Your task to perform on an android device: Go to Reddit.com Image 0: 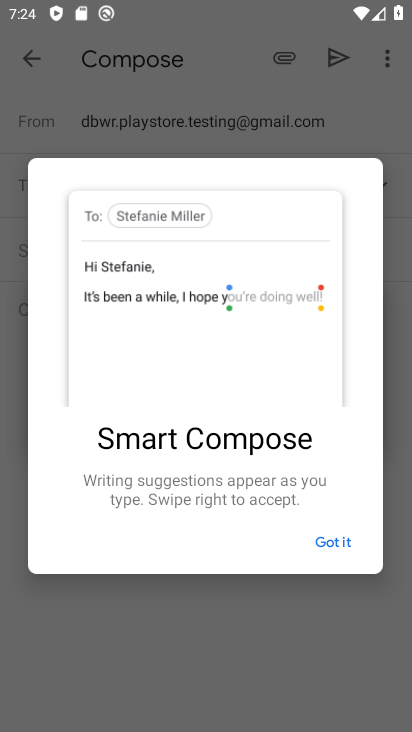
Step 0: press home button
Your task to perform on an android device: Go to Reddit.com Image 1: 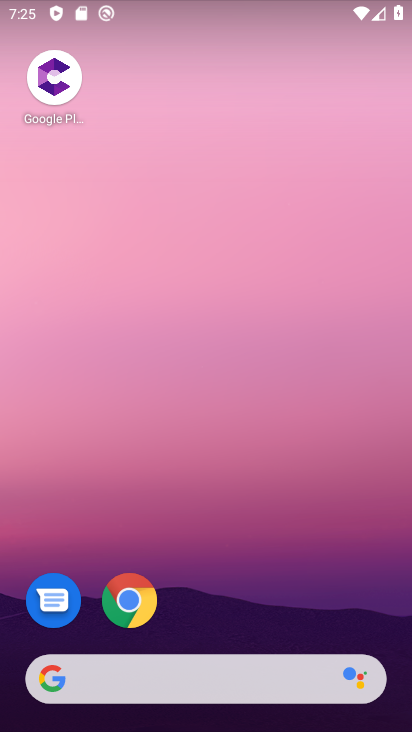
Step 1: drag from (365, 602) to (352, 153)
Your task to perform on an android device: Go to Reddit.com Image 2: 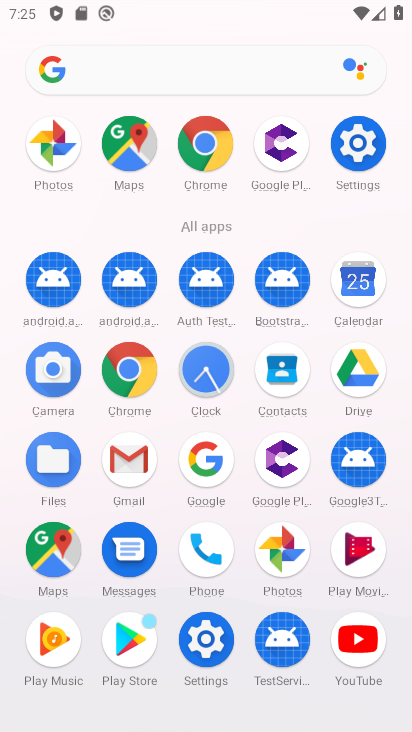
Step 2: click (136, 380)
Your task to perform on an android device: Go to Reddit.com Image 3: 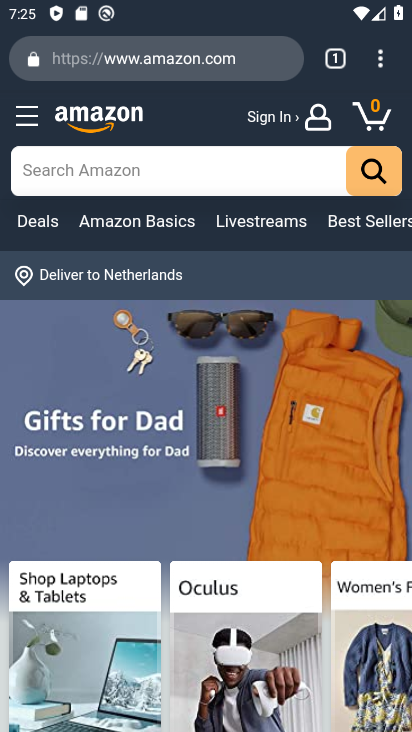
Step 3: click (207, 67)
Your task to perform on an android device: Go to Reddit.com Image 4: 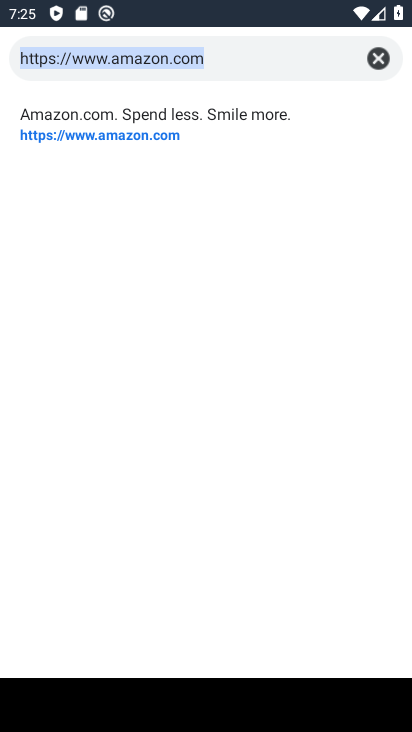
Step 4: click (374, 67)
Your task to perform on an android device: Go to Reddit.com Image 5: 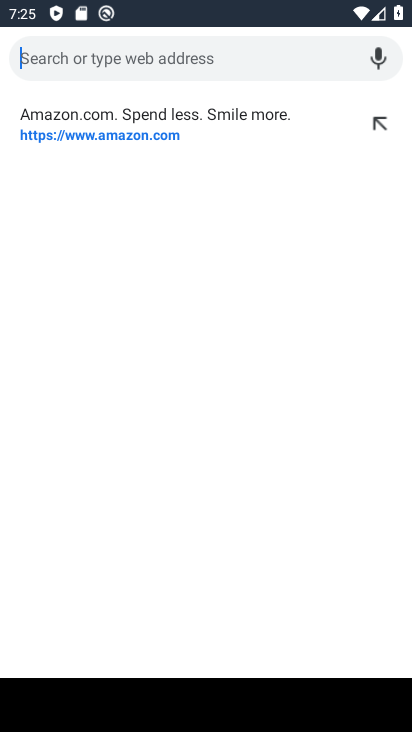
Step 5: type "reddit.com"
Your task to perform on an android device: Go to Reddit.com Image 6: 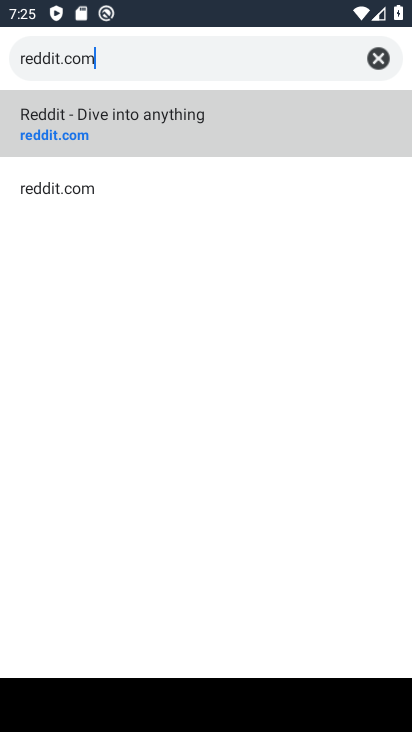
Step 6: click (86, 137)
Your task to perform on an android device: Go to Reddit.com Image 7: 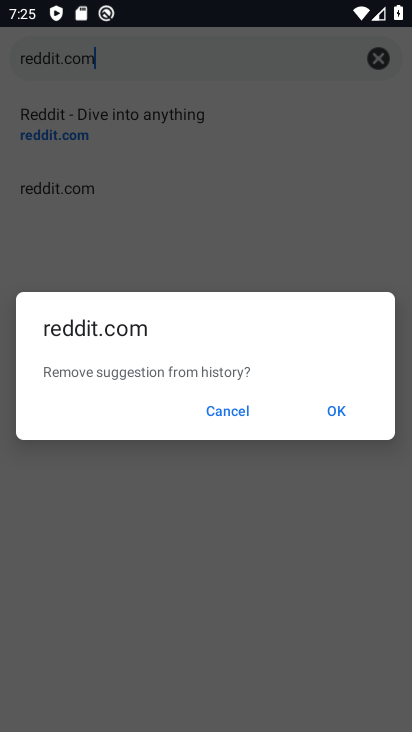
Step 7: click (339, 415)
Your task to perform on an android device: Go to Reddit.com Image 8: 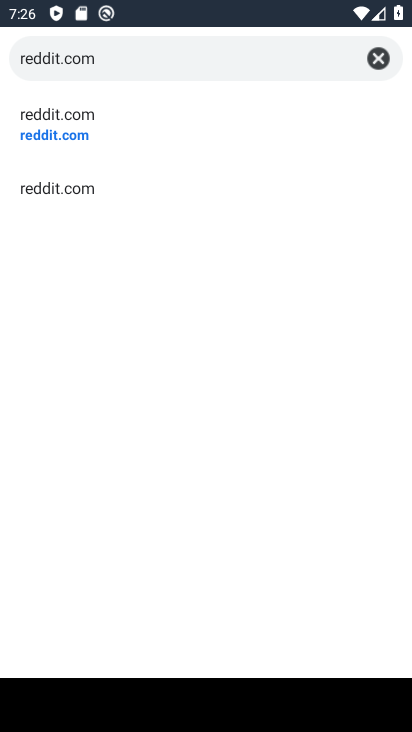
Step 8: click (40, 141)
Your task to perform on an android device: Go to Reddit.com Image 9: 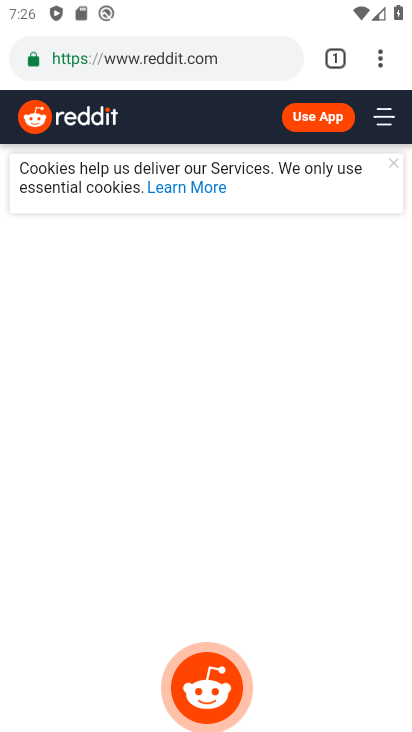
Step 9: task complete